Your task to perform on an android device: find which apps use the phone's location Image 0: 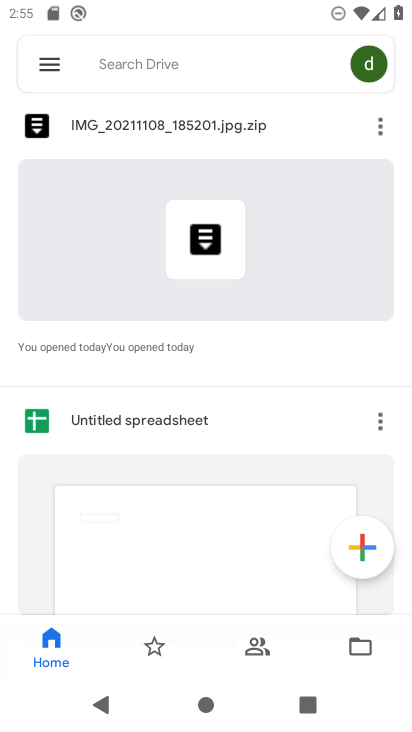
Step 0: press back button
Your task to perform on an android device: find which apps use the phone's location Image 1: 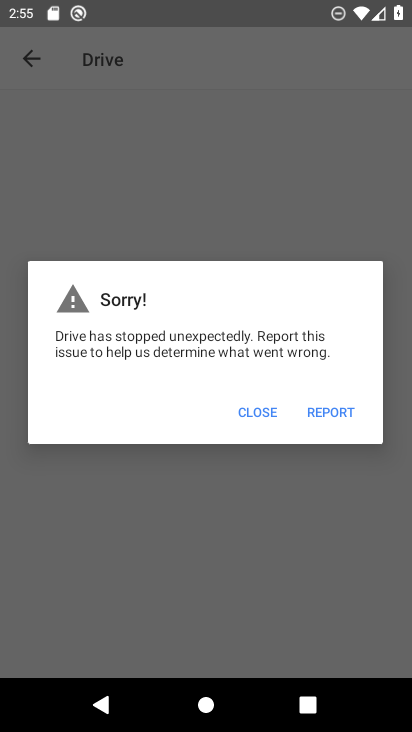
Step 1: press home button
Your task to perform on an android device: find which apps use the phone's location Image 2: 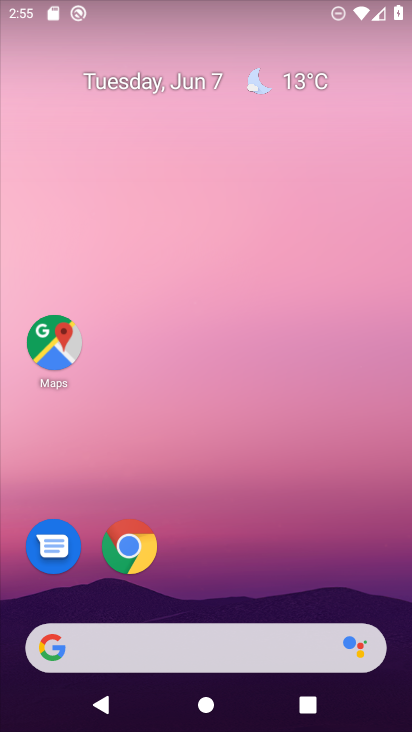
Step 2: drag from (251, 569) to (196, 12)
Your task to perform on an android device: find which apps use the phone's location Image 3: 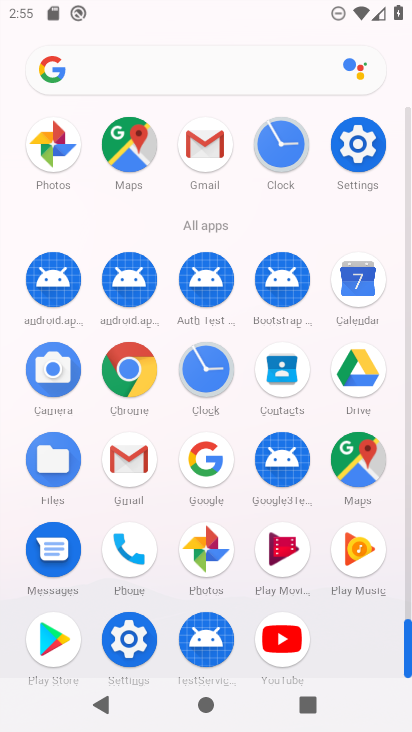
Step 3: click (127, 636)
Your task to perform on an android device: find which apps use the phone's location Image 4: 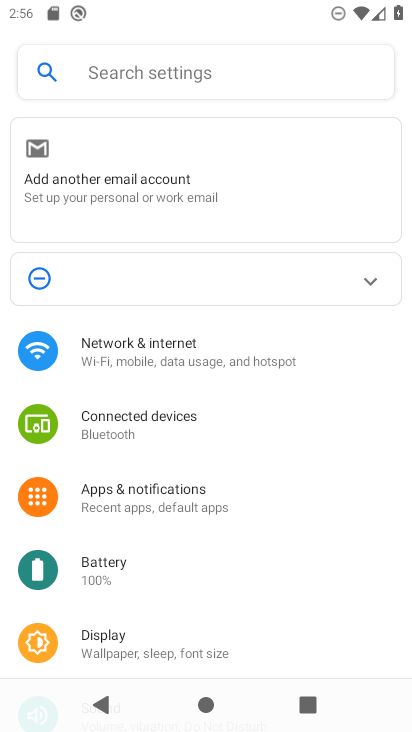
Step 4: drag from (230, 584) to (279, 219)
Your task to perform on an android device: find which apps use the phone's location Image 5: 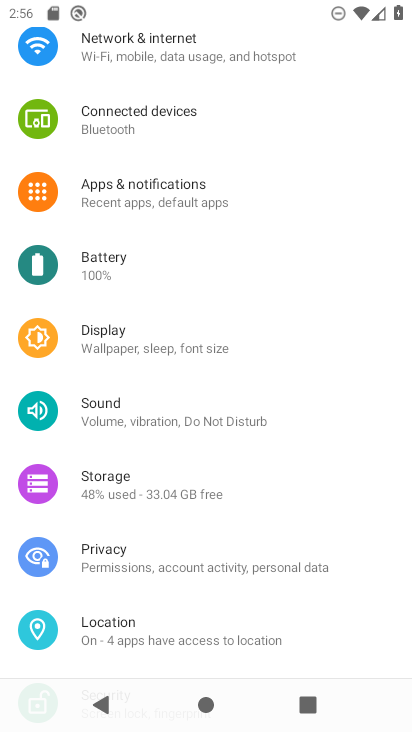
Step 5: click (114, 638)
Your task to perform on an android device: find which apps use the phone's location Image 6: 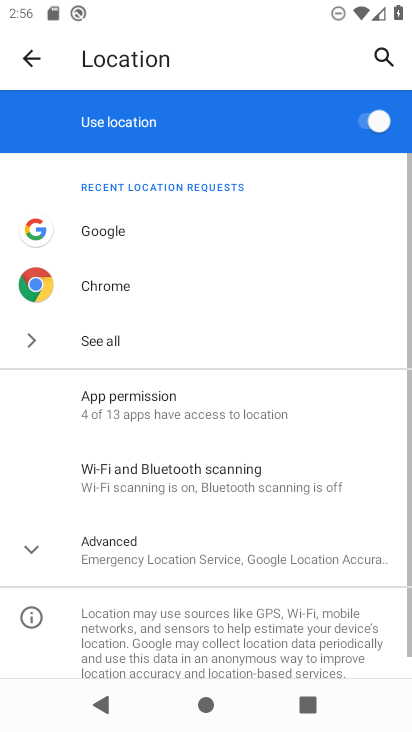
Step 6: click (154, 399)
Your task to perform on an android device: find which apps use the phone's location Image 7: 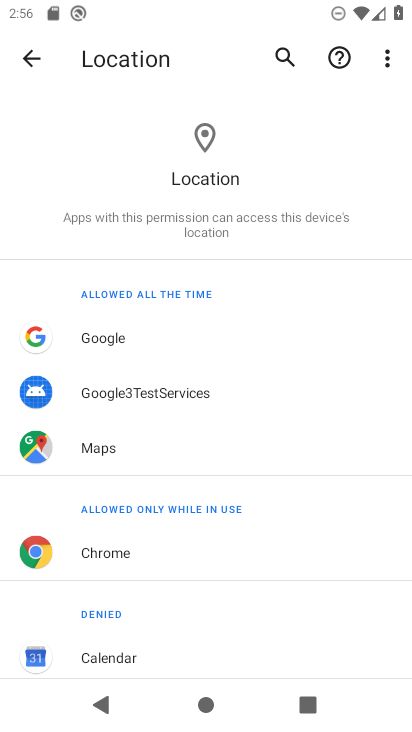
Step 7: task complete